Your task to perform on an android device: turn on bluetooth scan Image 0: 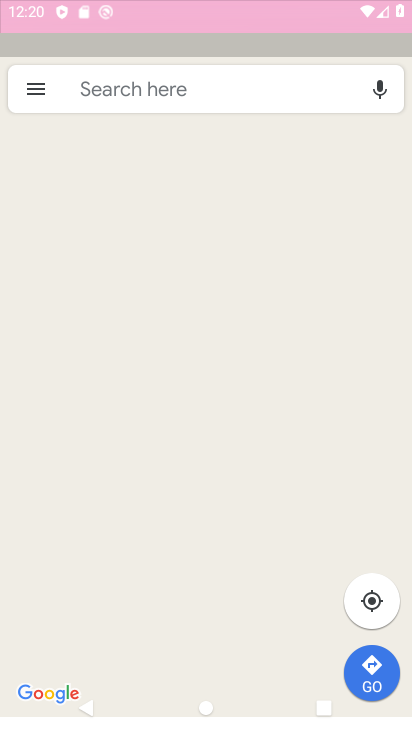
Step 0: drag from (194, 544) to (195, 120)
Your task to perform on an android device: turn on bluetooth scan Image 1: 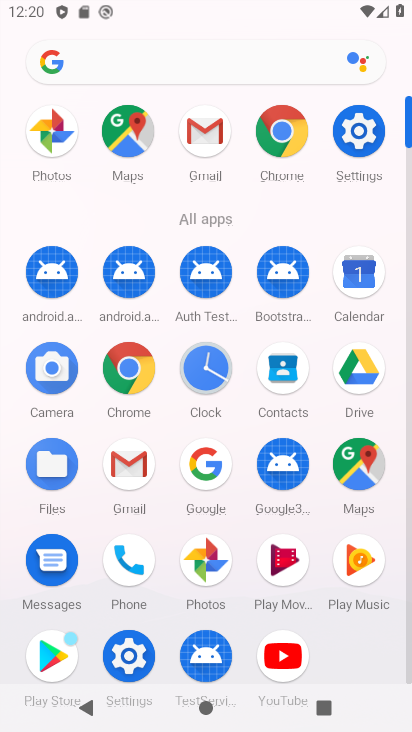
Step 1: click (352, 138)
Your task to perform on an android device: turn on bluetooth scan Image 2: 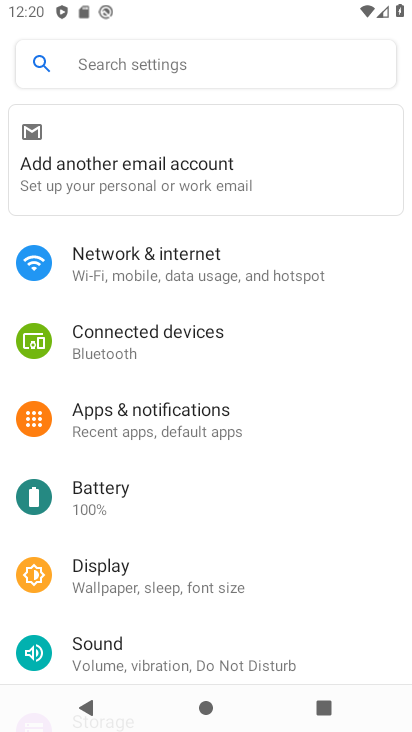
Step 2: drag from (219, 633) to (240, 47)
Your task to perform on an android device: turn on bluetooth scan Image 3: 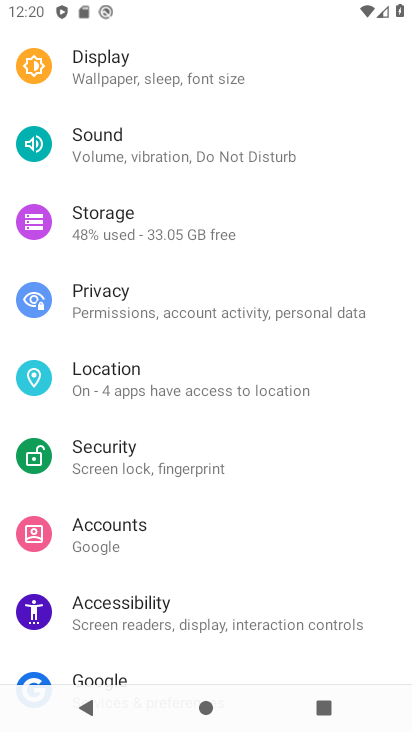
Step 3: click (123, 368)
Your task to perform on an android device: turn on bluetooth scan Image 4: 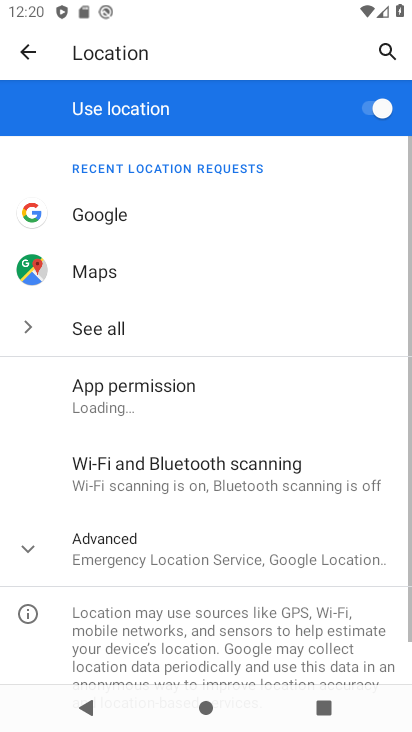
Step 4: click (211, 492)
Your task to perform on an android device: turn on bluetooth scan Image 5: 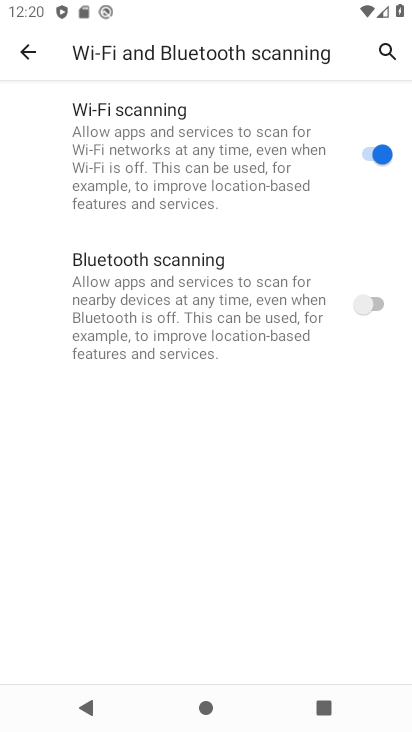
Step 5: click (369, 293)
Your task to perform on an android device: turn on bluetooth scan Image 6: 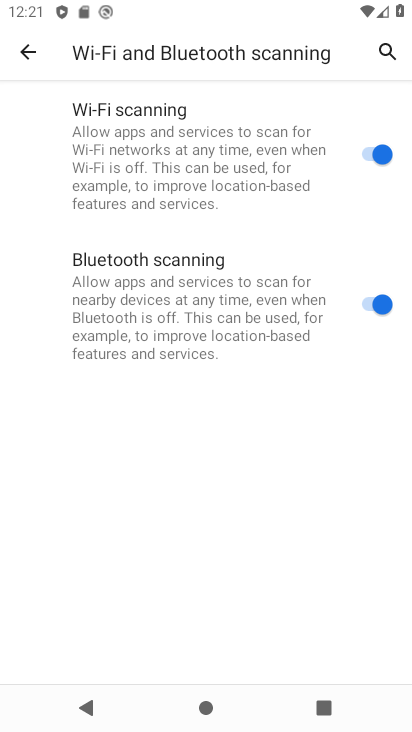
Step 6: task complete